Your task to perform on an android device: turn notification dots off Image 0: 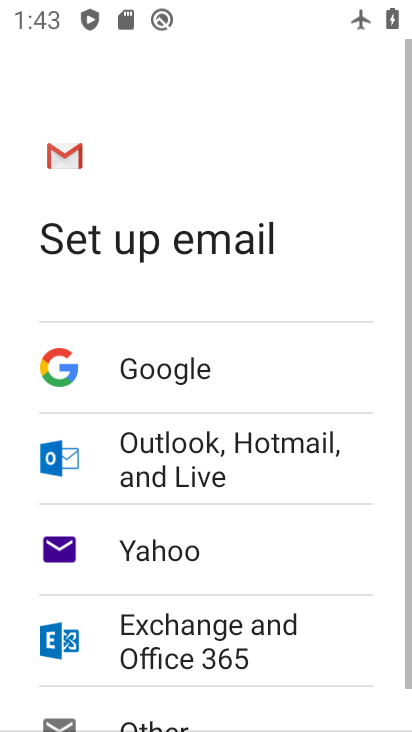
Step 0: press home button
Your task to perform on an android device: turn notification dots off Image 1: 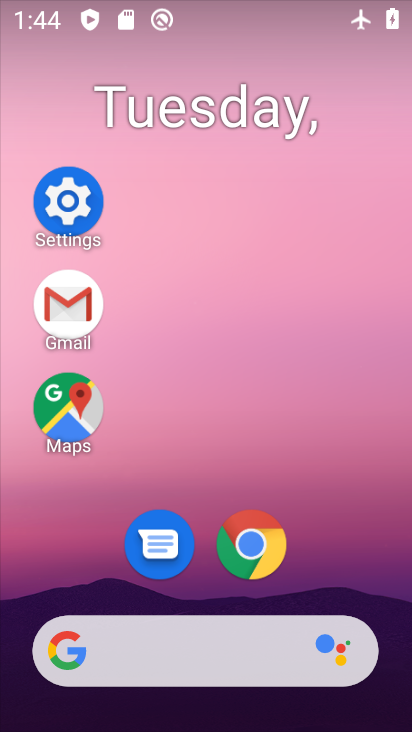
Step 1: click (81, 217)
Your task to perform on an android device: turn notification dots off Image 2: 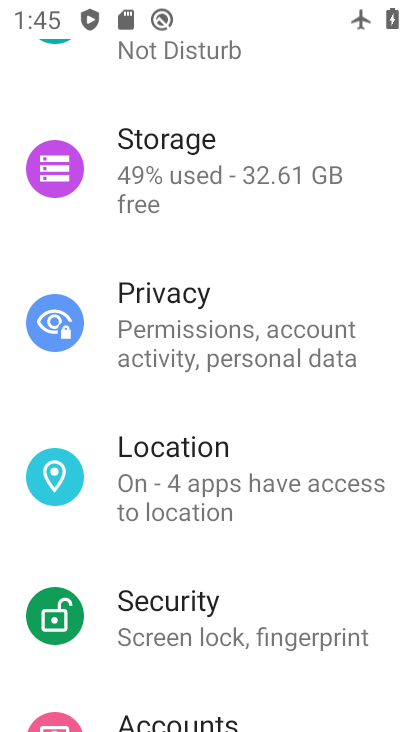
Step 2: drag from (294, 562) to (329, 659)
Your task to perform on an android device: turn notification dots off Image 3: 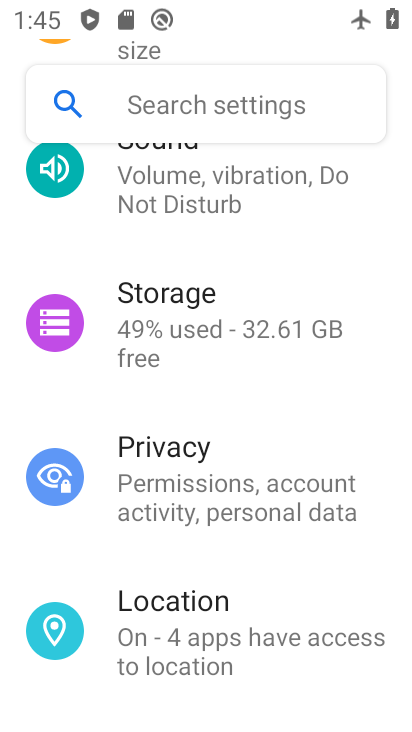
Step 3: drag from (285, 274) to (348, 684)
Your task to perform on an android device: turn notification dots off Image 4: 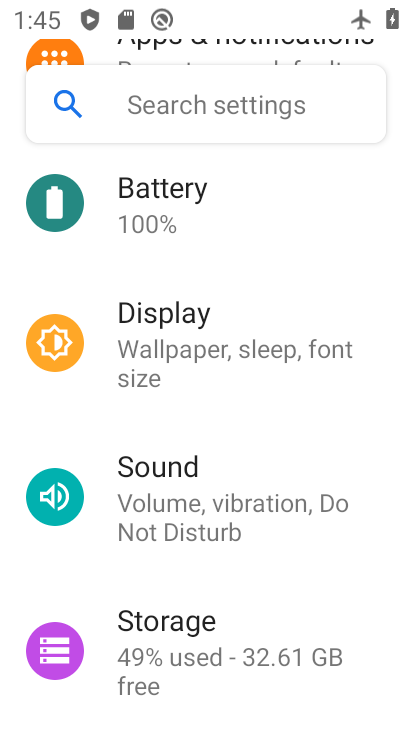
Step 4: drag from (288, 240) to (293, 703)
Your task to perform on an android device: turn notification dots off Image 5: 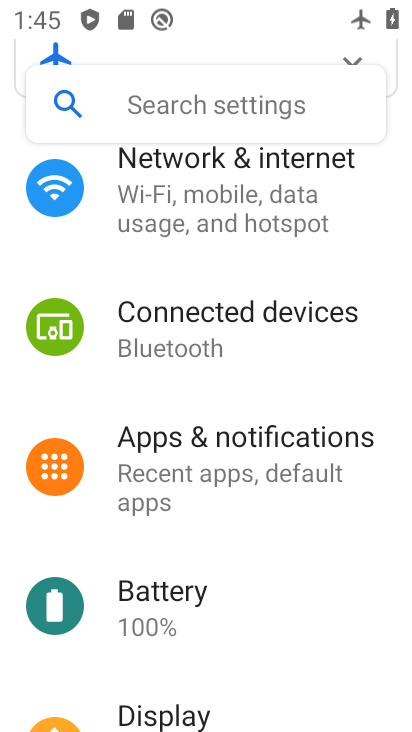
Step 5: drag from (248, 258) to (288, 595)
Your task to perform on an android device: turn notification dots off Image 6: 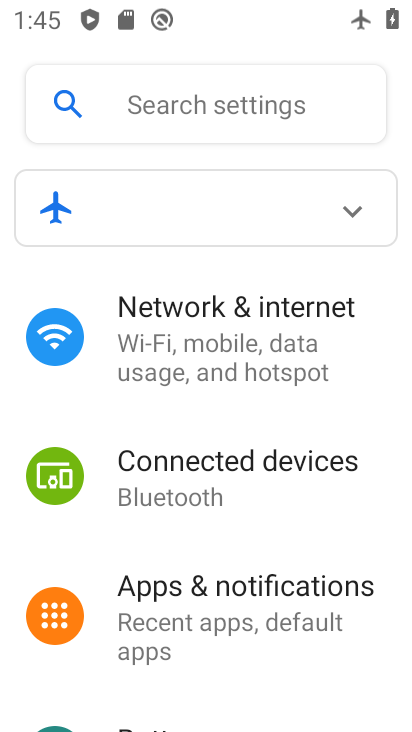
Step 6: click (286, 601)
Your task to perform on an android device: turn notification dots off Image 7: 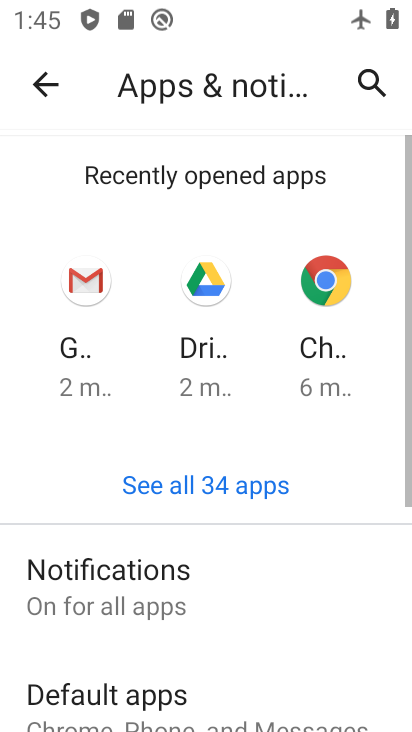
Step 7: drag from (286, 601) to (260, 249)
Your task to perform on an android device: turn notification dots off Image 8: 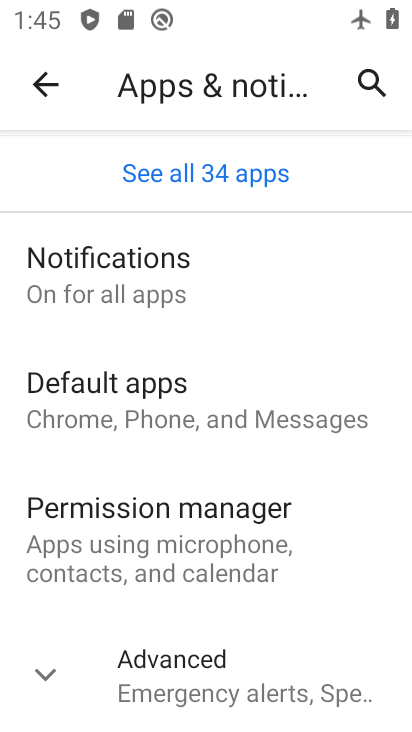
Step 8: click (221, 262)
Your task to perform on an android device: turn notification dots off Image 9: 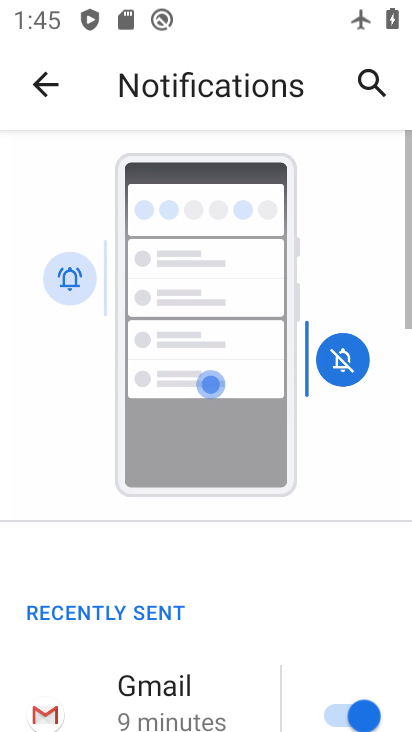
Step 9: drag from (263, 576) to (255, 108)
Your task to perform on an android device: turn notification dots off Image 10: 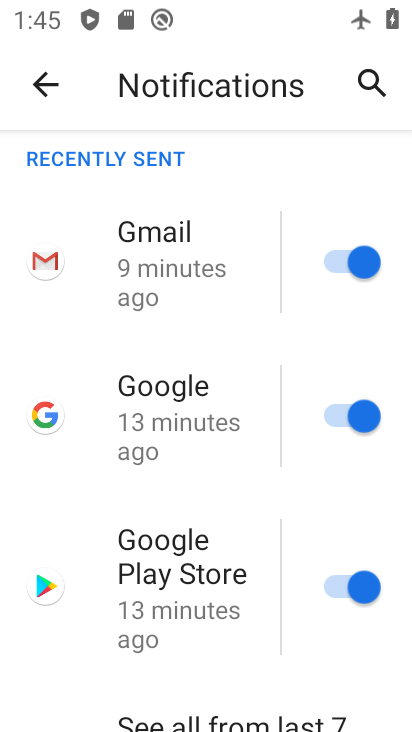
Step 10: drag from (225, 503) to (247, 139)
Your task to perform on an android device: turn notification dots off Image 11: 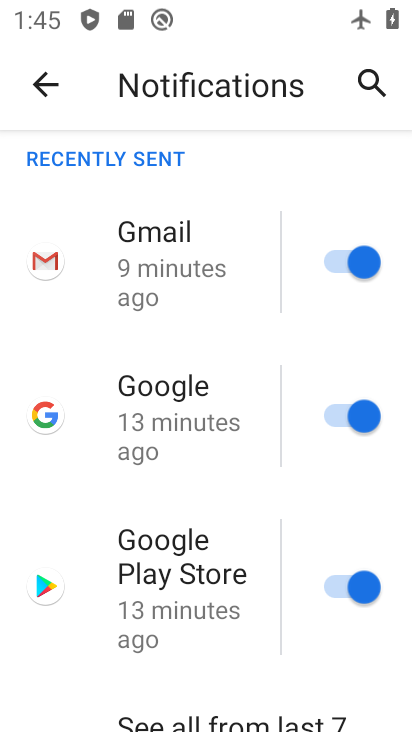
Step 11: drag from (254, 561) to (253, 195)
Your task to perform on an android device: turn notification dots off Image 12: 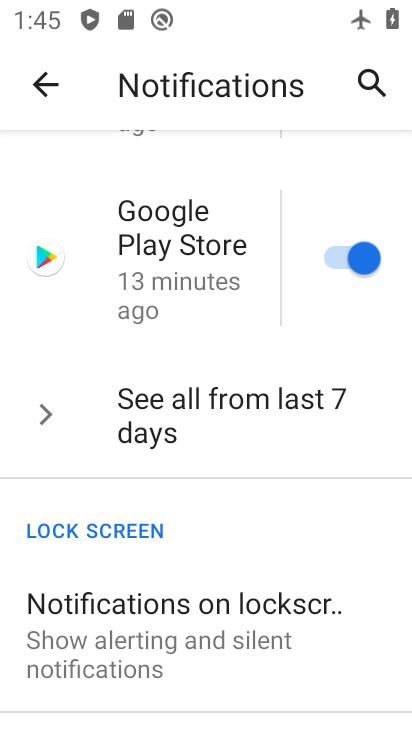
Step 12: drag from (235, 600) to (256, 235)
Your task to perform on an android device: turn notification dots off Image 13: 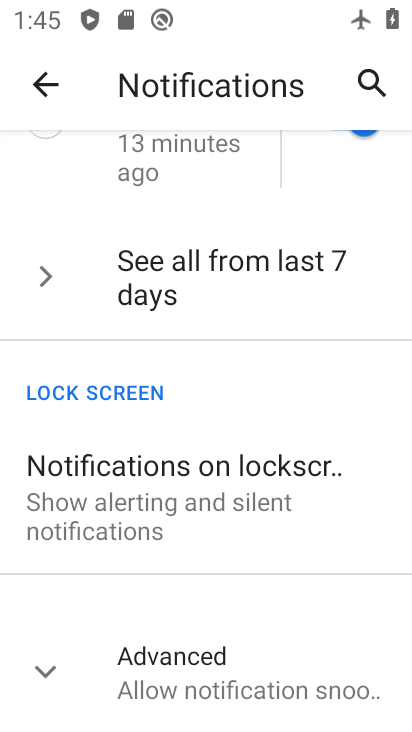
Step 13: click (201, 682)
Your task to perform on an android device: turn notification dots off Image 14: 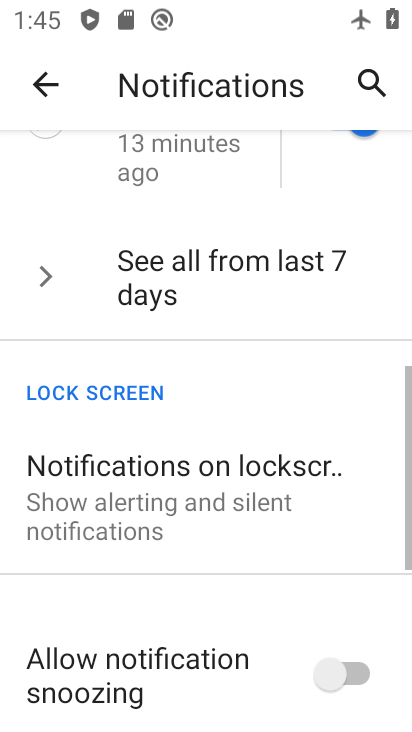
Step 14: drag from (208, 658) to (235, 231)
Your task to perform on an android device: turn notification dots off Image 15: 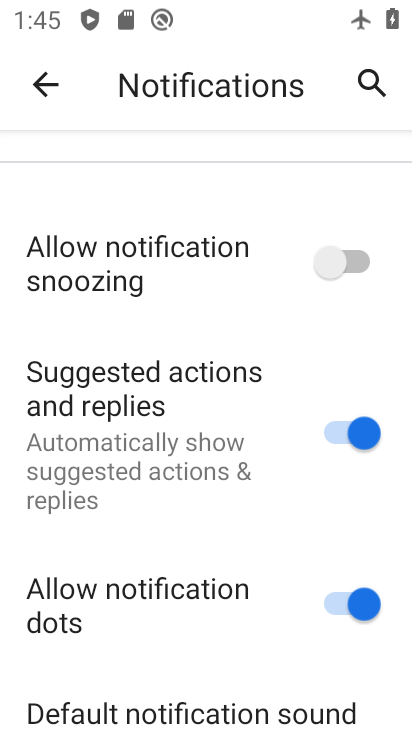
Step 15: drag from (269, 592) to (267, 243)
Your task to perform on an android device: turn notification dots off Image 16: 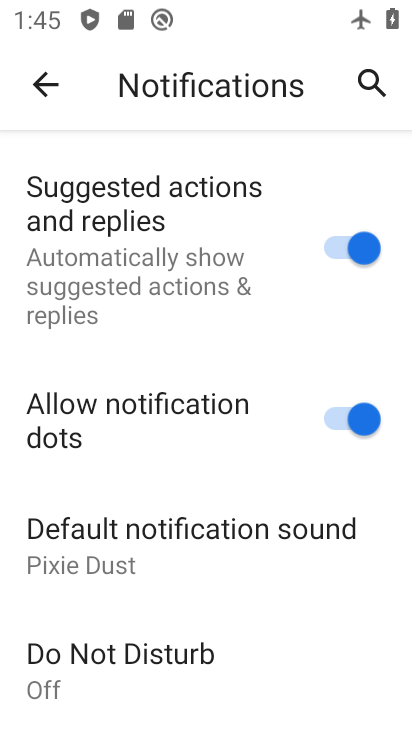
Step 16: click (332, 415)
Your task to perform on an android device: turn notification dots off Image 17: 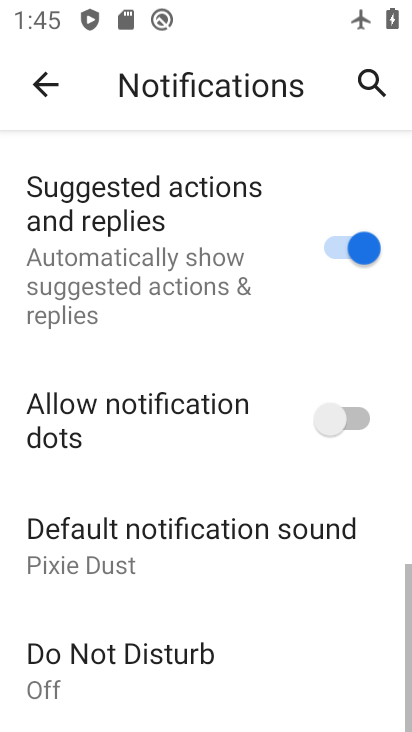
Step 17: task complete